Your task to perform on an android device: Go to Google Image 0: 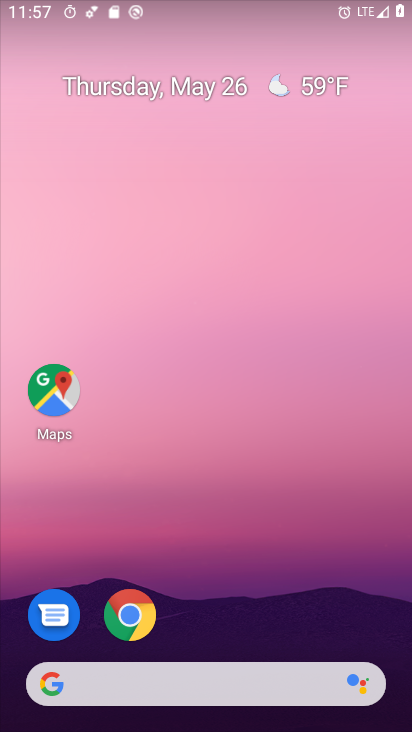
Step 0: drag from (266, 706) to (223, 250)
Your task to perform on an android device: Go to Google Image 1: 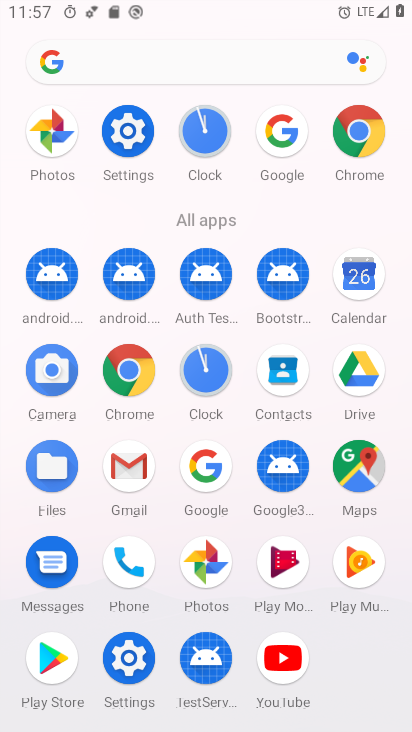
Step 1: click (216, 480)
Your task to perform on an android device: Go to Google Image 2: 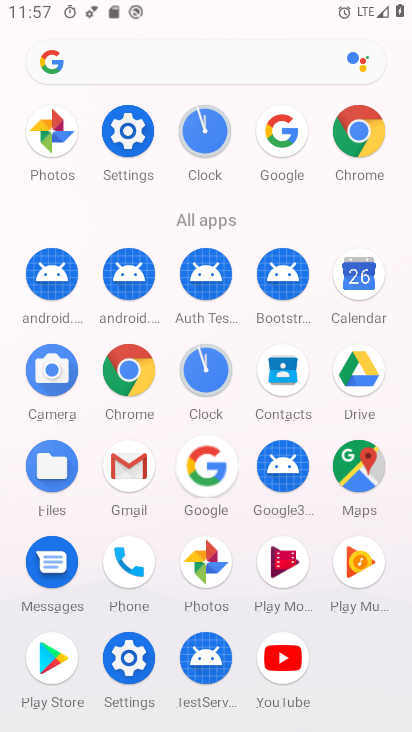
Step 2: click (215, 479)
Your task to perform on an android device: Go to Google Image 3: 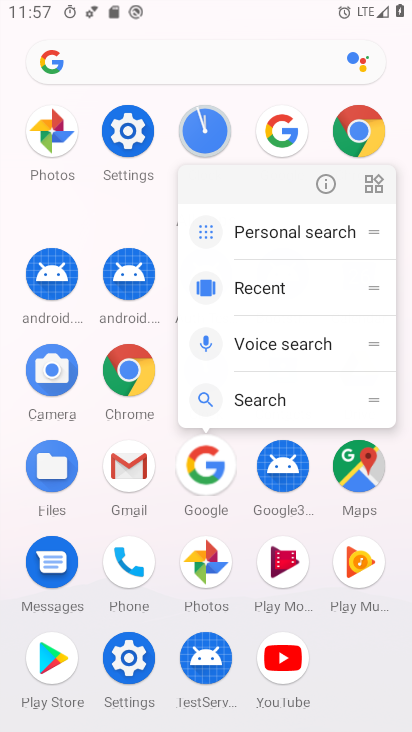
Step 3: click (215, 479)
Your task to perform on an android device: Go to Google Image 4: 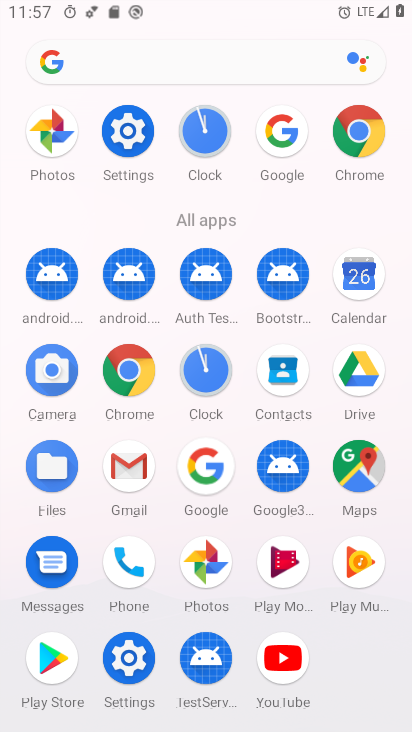
Step 4: click (214, 479)
Your task to perform on an android device: Go to Google Image 5: 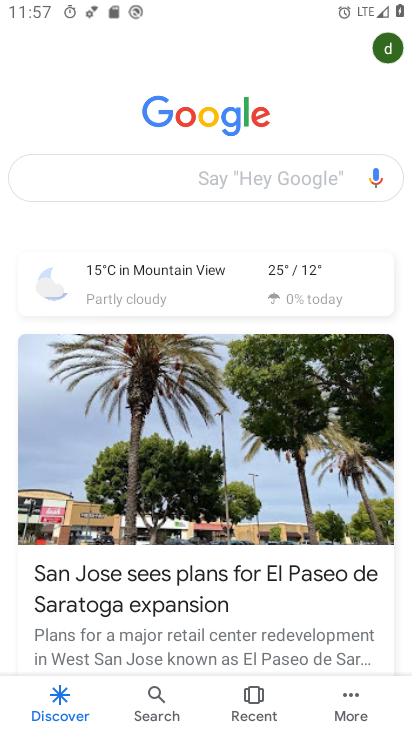
Step 5: task complete